Your task to perform on an android device: Show me popular videos on Youtube Image 0: 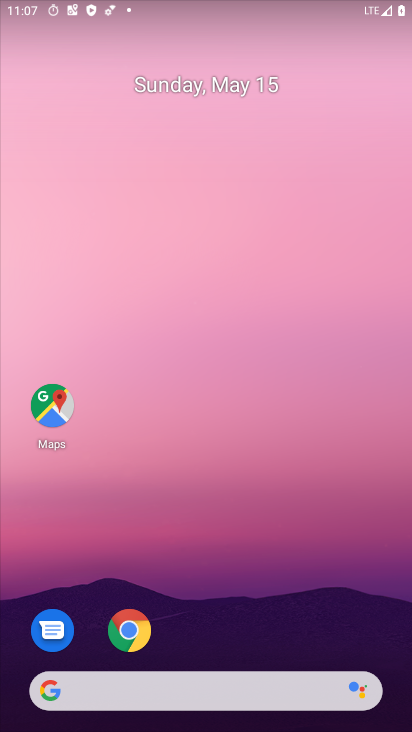
Step 0: drag from (216, 643) to (344, 56)
Your task to perform on an android device: Show me popular videos on Youtube Image 1: 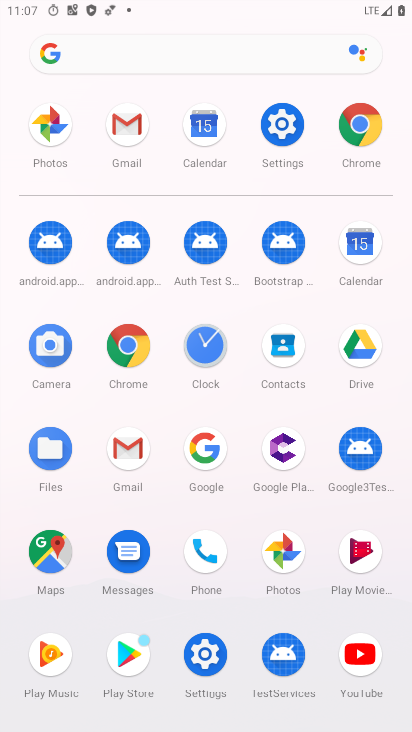
Step 1: click (355, 678)
Your task to perform on an android device: Show me popular videos on Youtube Image 2: 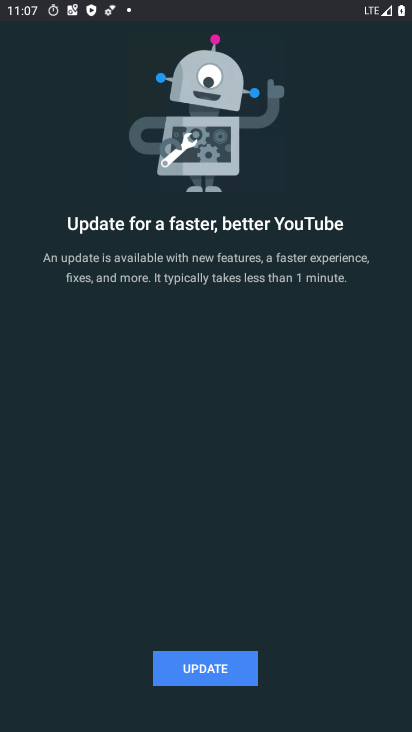
Step 2: click (250, 657)
Your task to perform on an android device: Show me popular videos on Youtube Image 3: 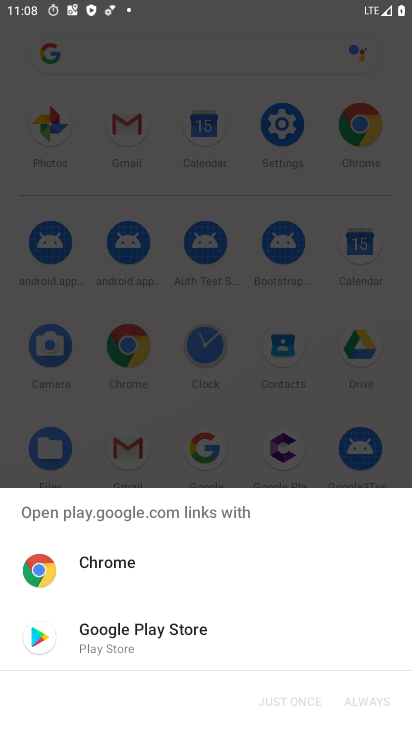
Step 3: click (120, 637)
Your task to perform on an android device: Show me popular videos on Youtube Image 4: 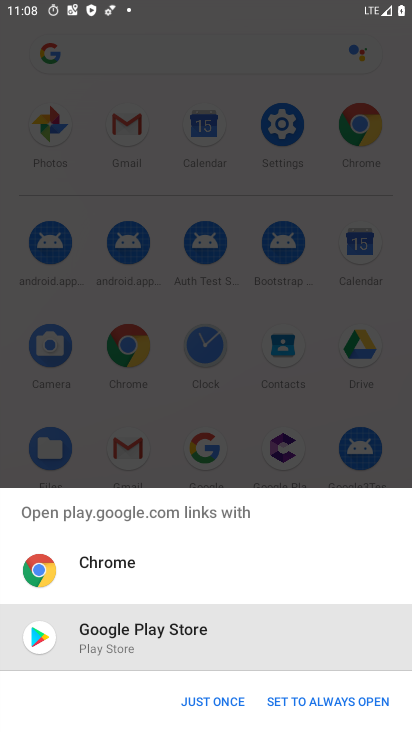
Step 4: click (212, 702)
Your task to perform on an android device: Show me popular videos on Youtube Image 5: 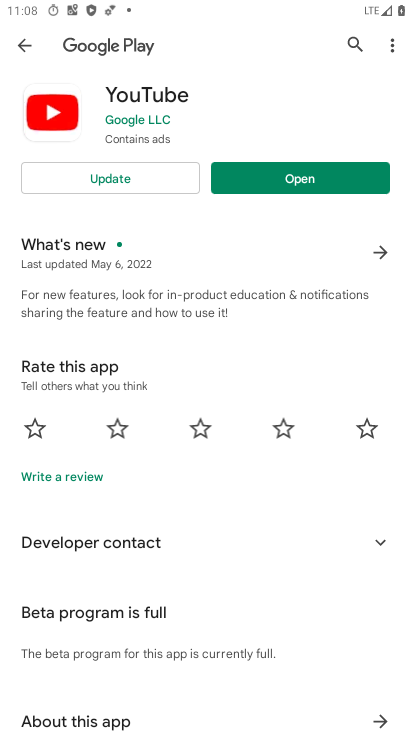
Step 5: click (123, 174)
Your task to perform on an android device: Show me popular videos on Youtube Image 6: 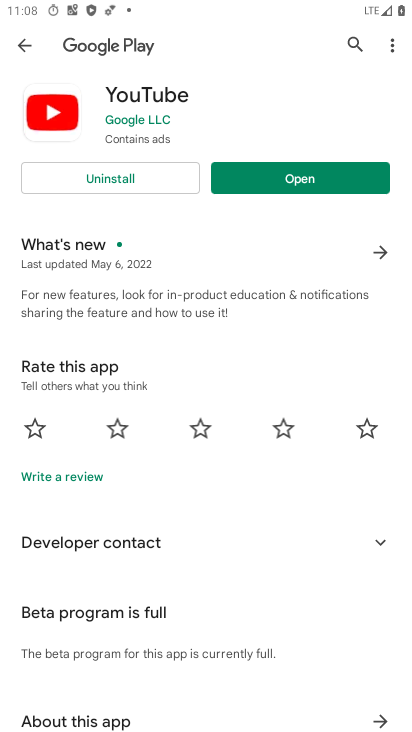
Step 6: click (296, 179)
Your task to perform on an android device: Show me popular videos on Youtube Image 7: 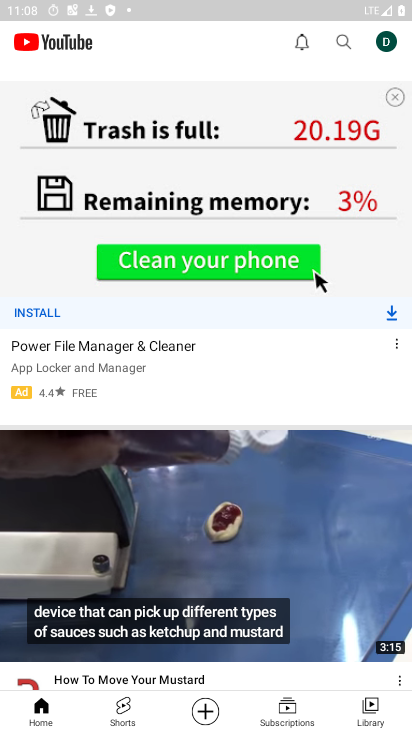
Step 7: drag from (201, 423) to (208, 687)
Your task to perform on an android device: Show me popular videos on Youtube Image 8: 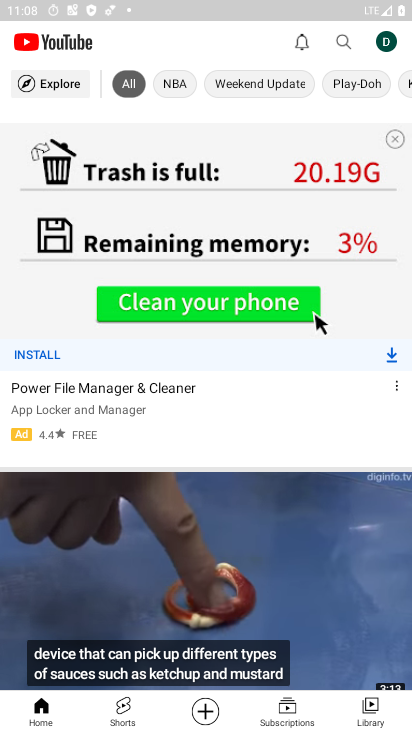
Step 8: click (57, 86)
Your task to perform on an android device: Show me popular videos on Youtube Image 9: 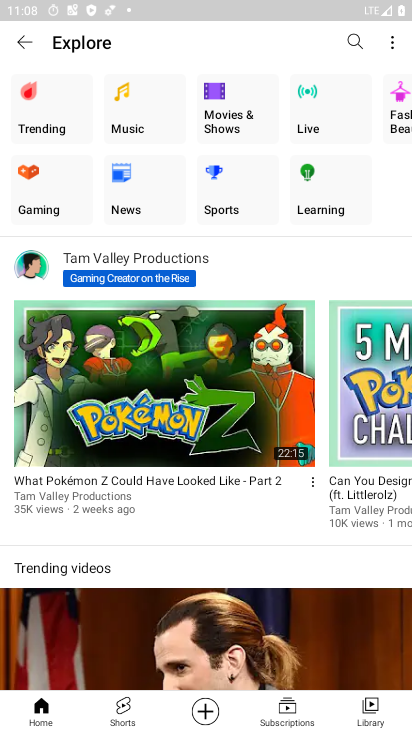
Step 9: click (44, 121)
Your task to perform on an android device: Show me popular videos on Youtube Image 10: 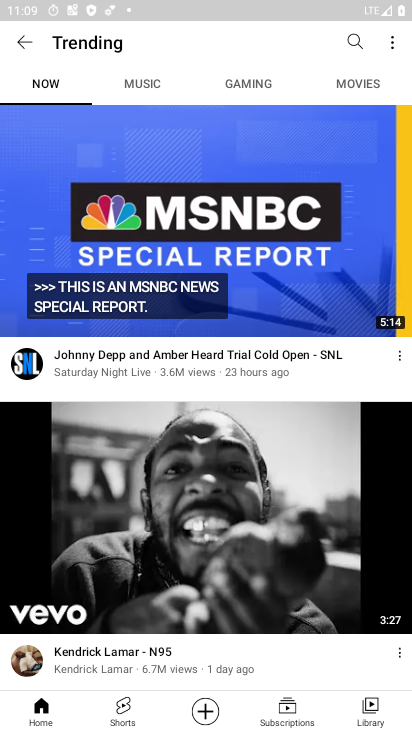
Step 10: task complete